Your task to perform on an android device: Go to eBay Image 0: 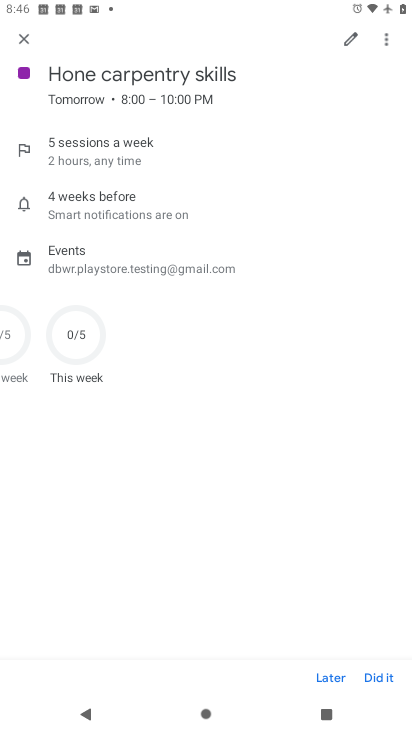
Step 0: press home button
Your task to perform on an android device: Go to eBay Image 1: 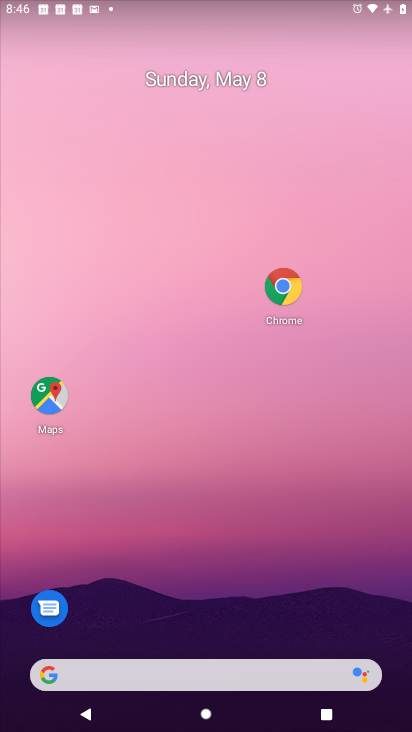
Step 1: click (286, 280)
Your task to perform on an android device: Go to eBay Image 2: 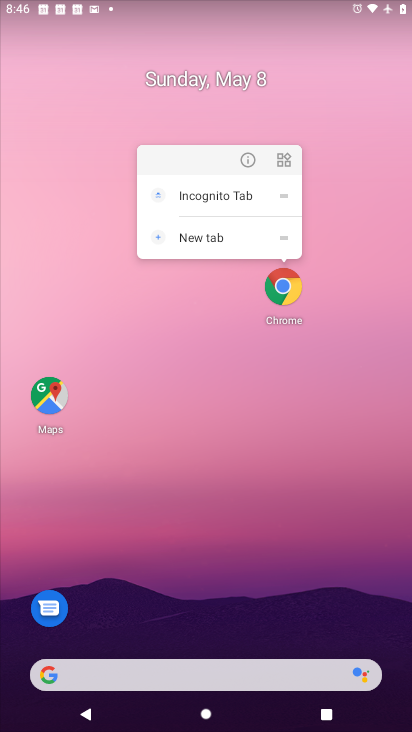
Step 2: click (282, 294)
Your task to perform on an android device: Go to eBay Image 3: 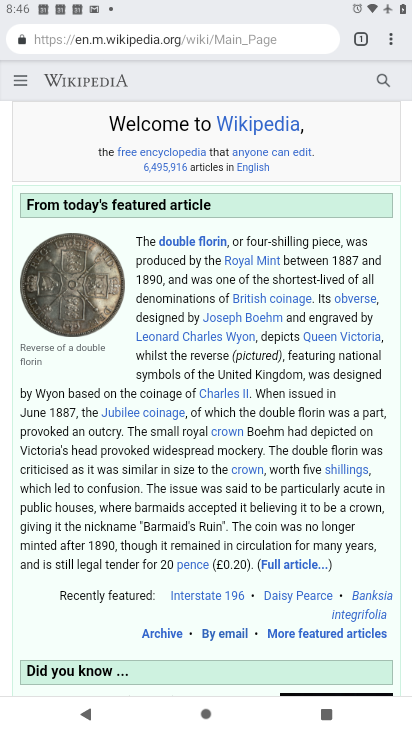
Step 3: drag from (392, 37) to (309, 78)
Your task to perform on an android device: Go to eBay Image 4: 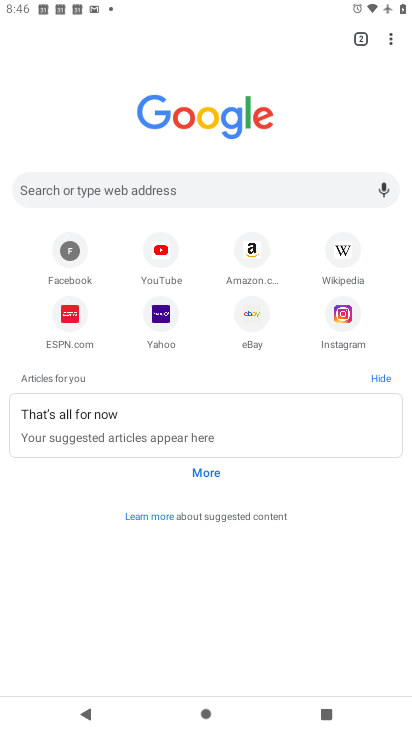
Step 4: click (255, 315)
Your task to perform on an android device: Go to eBay Image 5: 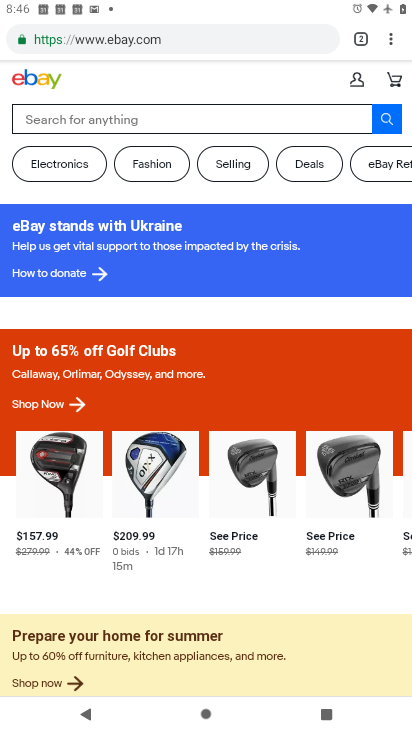
Step 5: task complete